Your task to perform on an android device: Show me the alarms in the clock app Image 0: 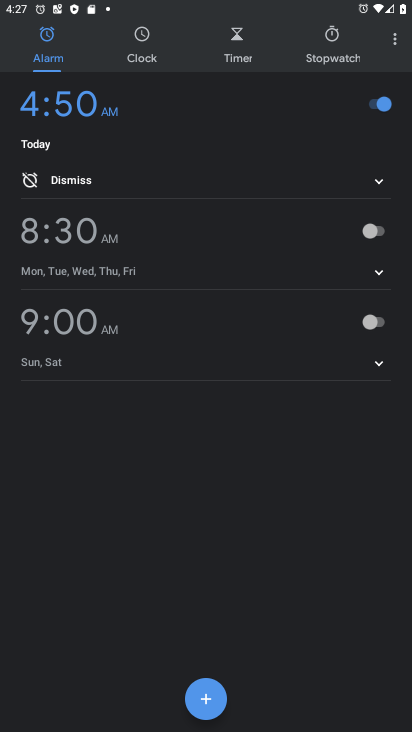
Step 0: task complete